Your task to perform on an android device: Open the Play Movies app and select the watchlist tab. Image 0: 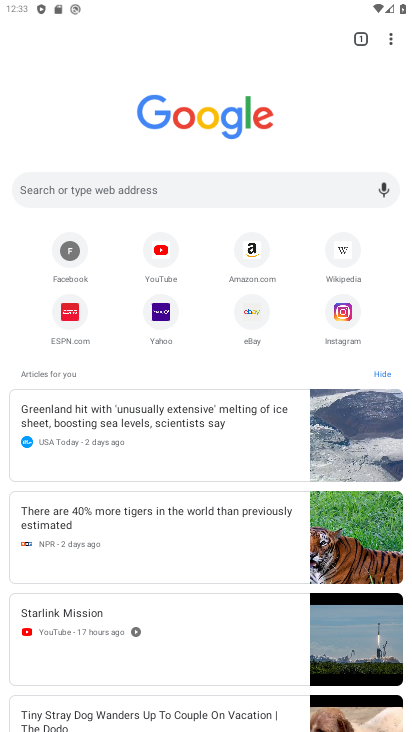
Step 0: press home button
Your task to perform on an android device: Open the Play Movies app and select the watchlist tab. Image 1: 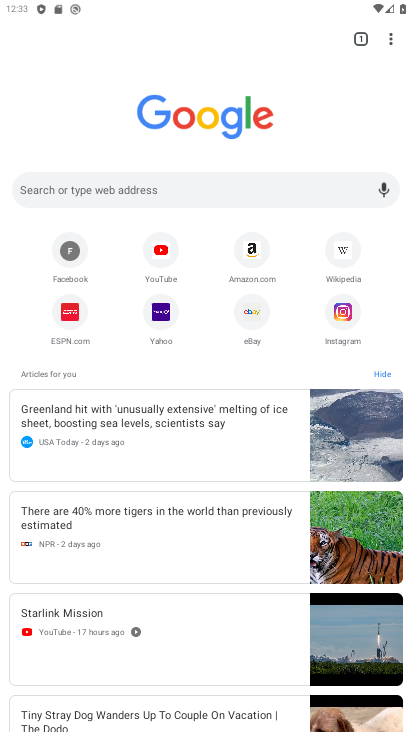
Step 1: press home button
Your task to perform on an android device: Open the Play Movies app and select the watchlist tab. Image 2: 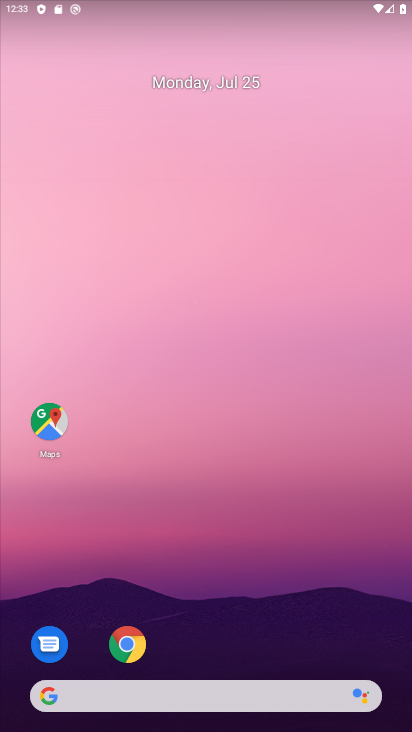
Step 2: drag from (212, 730) to (224, 163)
Your task to perform on an android device: Open the Play Movies app and select the watchlist tab. Image 3: 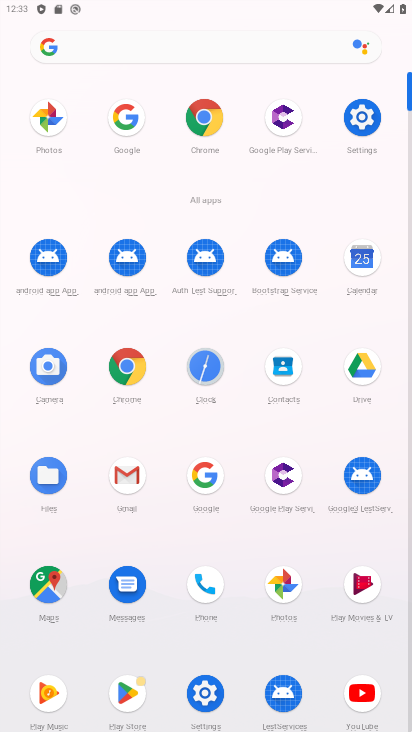
Step 3: click (364, 584)
Your task to perform on an android device: Open the Play Movies app and select the watchlist tab. Image 4: 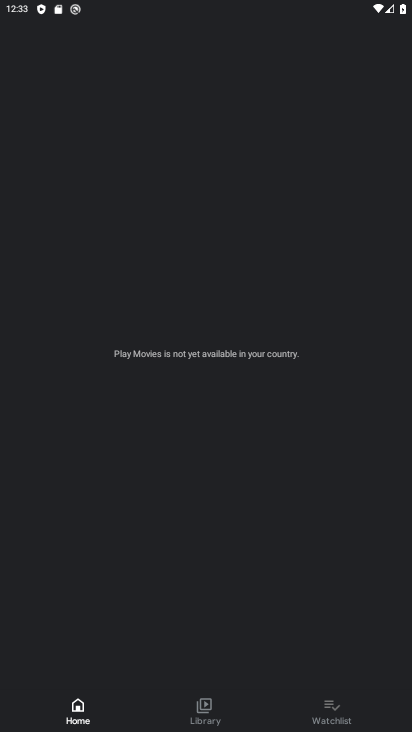
Step 4: click (330, 706)
Your task to perform on an android device: Open the Play Movies app and select the watchlist tab. Image 5: 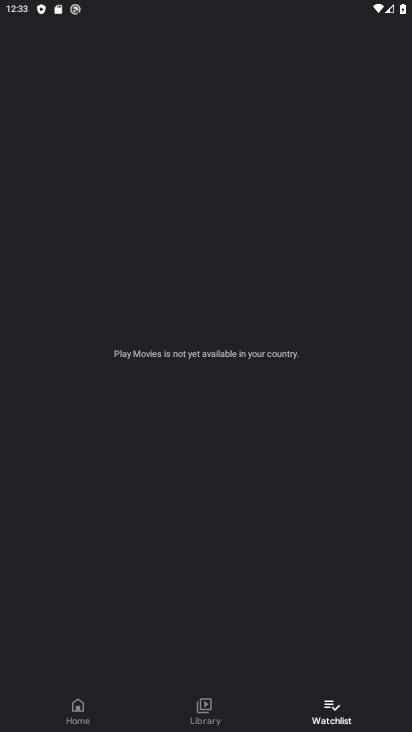
Step 5: task complete